Your task to perform on an android device: Open notification settings Image 0: 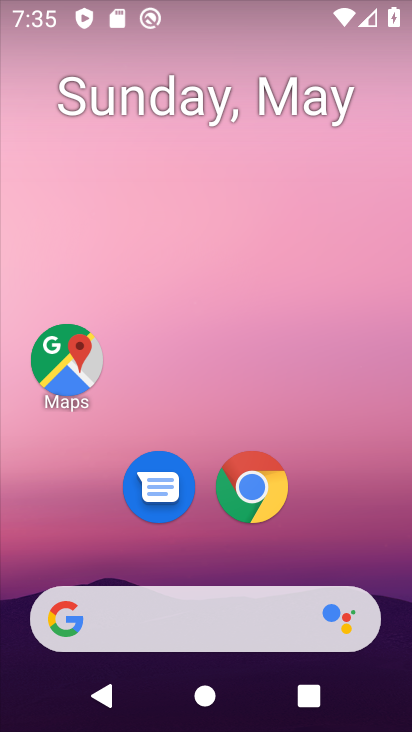
Step 0: drag from (165, 357) to (151, 148)
Your task to perform on an android device: Open notification settings Image 1: 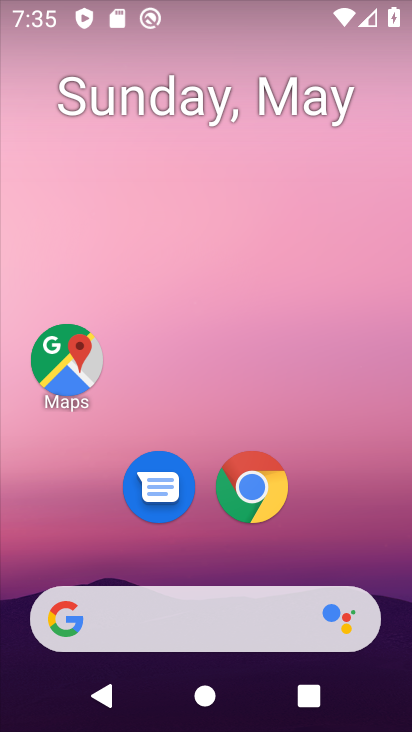
Step 1: drag from (198, 543) to (170, 214)
Your task to perform on an android device: Open notification settings Image 2: 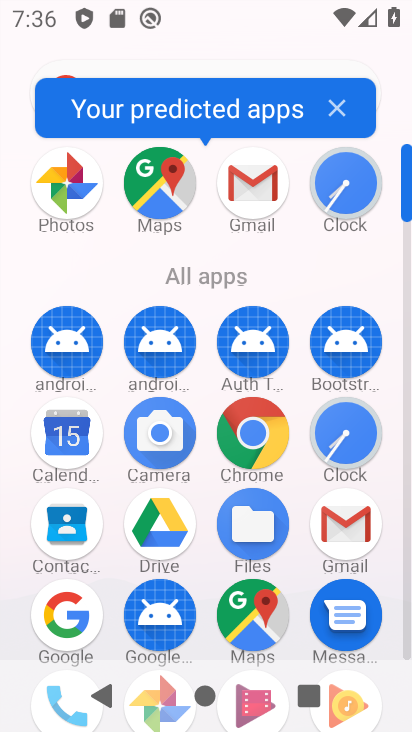
Step 2: drag from (206, 531) to (219, 266)
Your task to perform on an android device: Open notification settings Image 3: 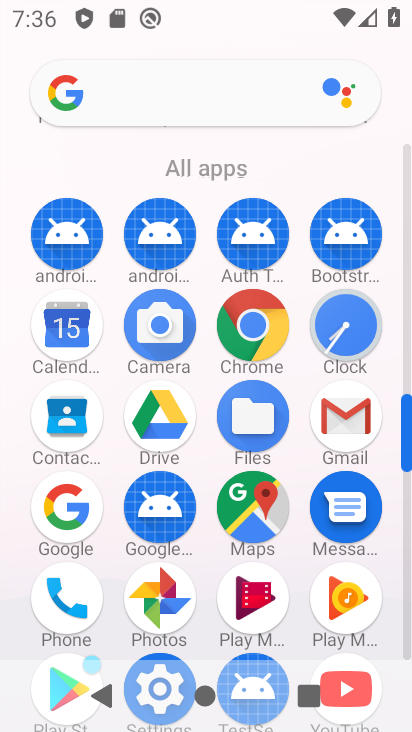
Step 3: drag from (206, 624) to (232, 376)
Your task to perform on an android device: Open notification settings Image 4: 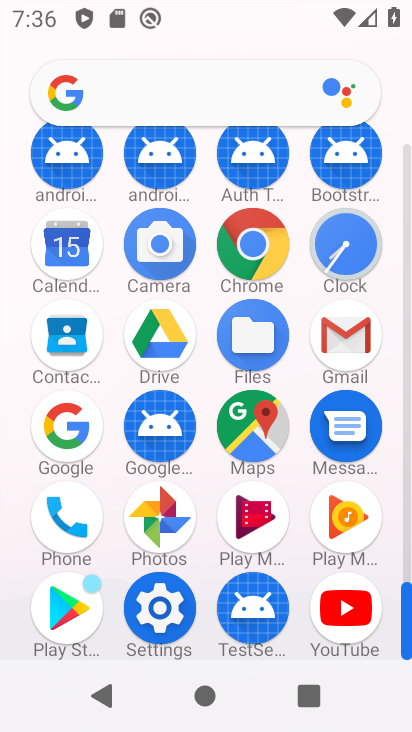
Step 4: click (165, 592)
Your task to perform on an android device: Open notification settings Image 5: 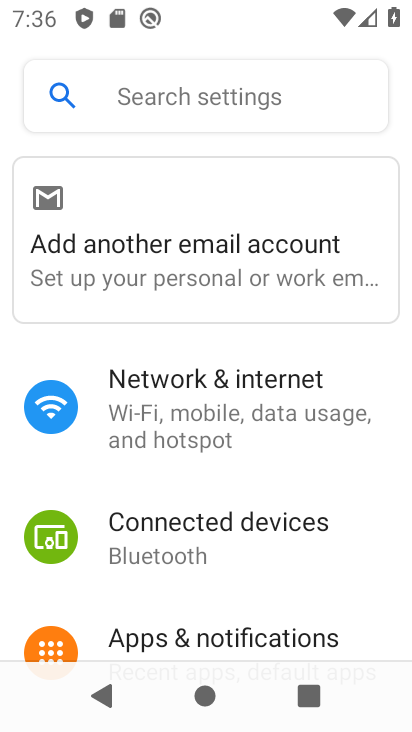
Step 5: click (209, 635)
Your task to perform on an android device: Open notification settings Image 6: 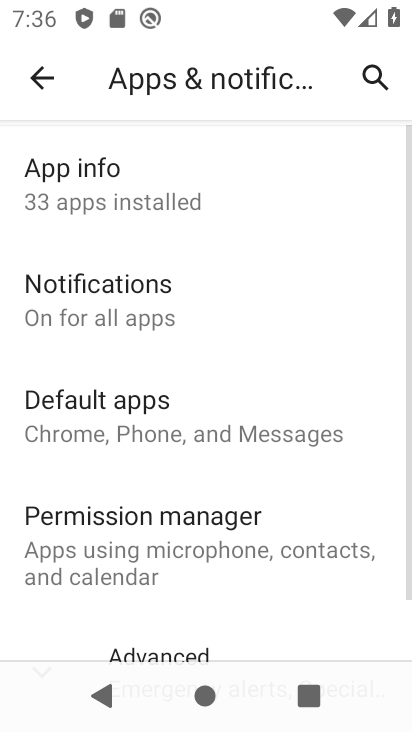
Step 6: task complete